Your task to perform on an android device: open the mobile data screen to see how much data has been used Image 0: 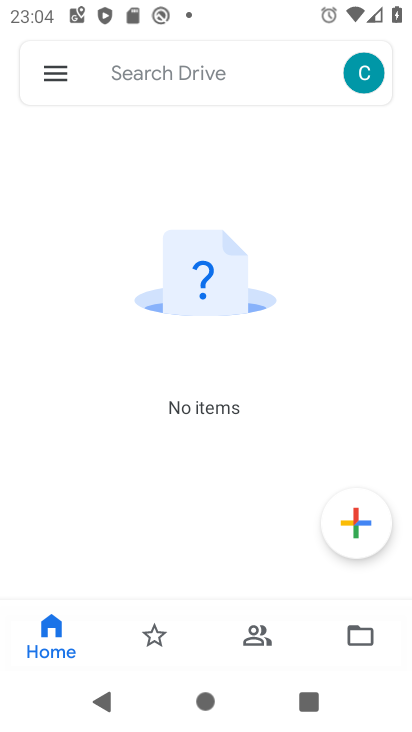
Step 0: press home button
Your task to perform on an android device: open the mobile data screen to see how much data has been used Image 1: 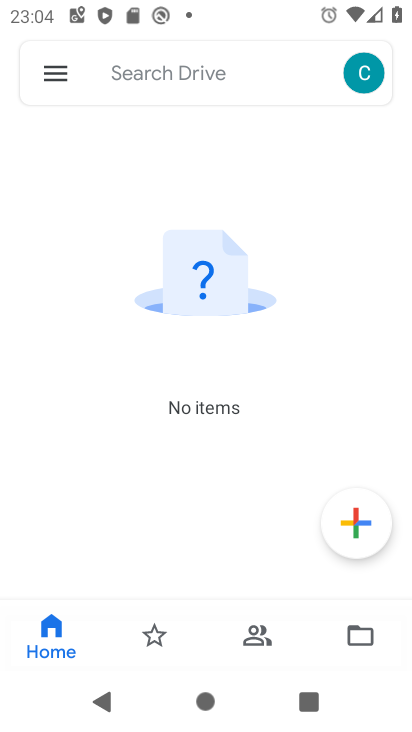
Step 1: press home button
Your task to perform on an android device: open the mobile data screen to see how much data has been used Image 2: 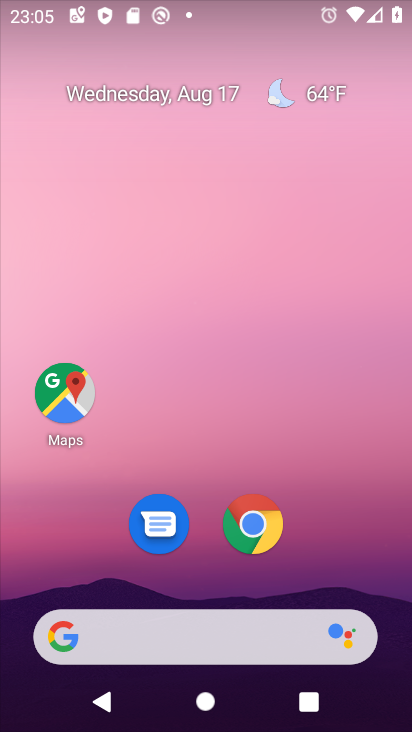
Step 2: drag from (354, 495) to (359, 14)
Your task to perform on an android device: open the mobile data screen to see how much data has been used Image 3: 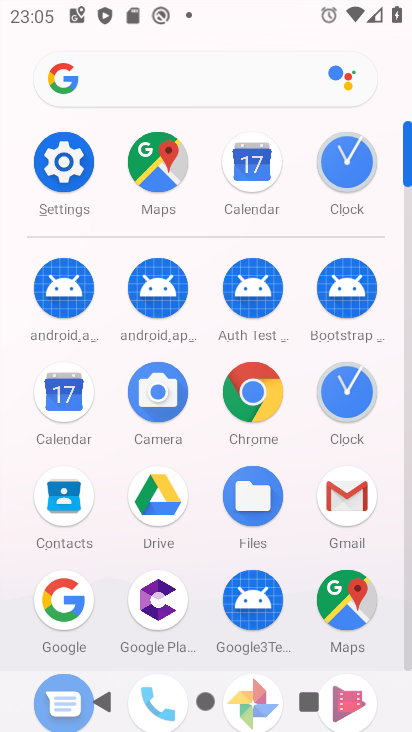
Step 3: click (65, 150)
Your task to perform on an android device: open the mobile data screen to see how much data has been used Image 4: 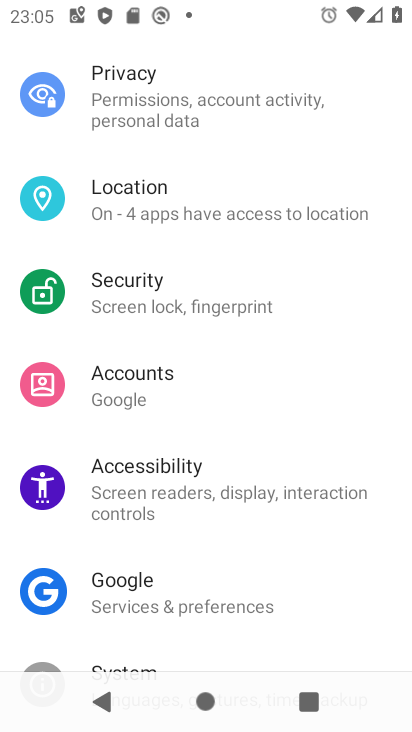
Step 4: drag from (233, 276) to (215, 587)
Your task to perform on an android device: open the mobile data screen to see how much data has been used Image 5: 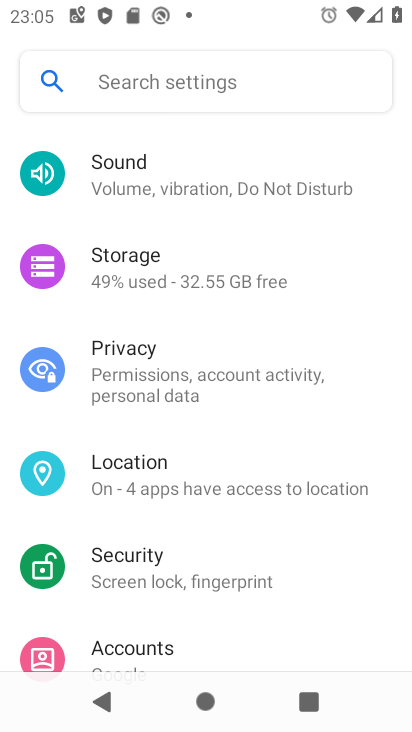
Step 5: drag from (241, 323) to (248, 627)
Your task to perform on an android device: open the mobile data screen to see how much data has been used Image 6: 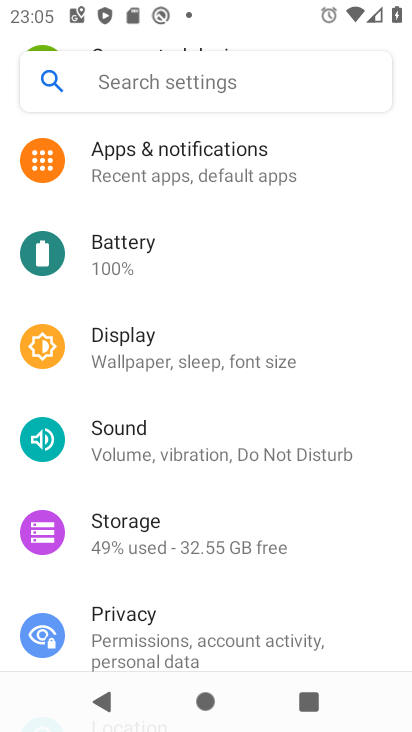
Step 6: drag from (248, 312) to (257, 655)
Your task to perform on an android device: open the mobile data screen to see how much data has been used Image 7: 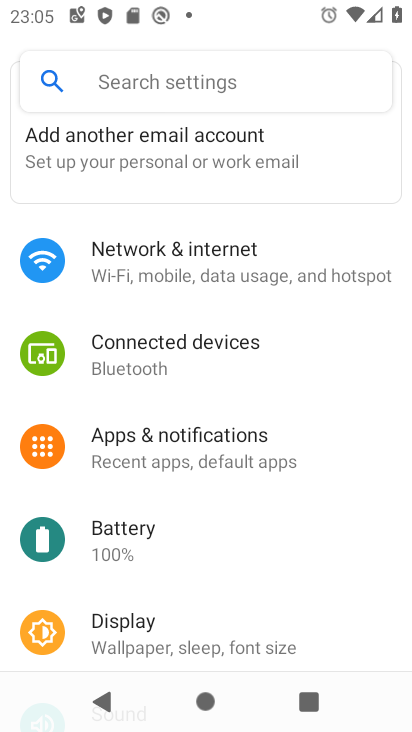
Step 7: click (239, 252)
Your task to perform on an android device: open the mobile data screen to see how much data has been used Image 8: 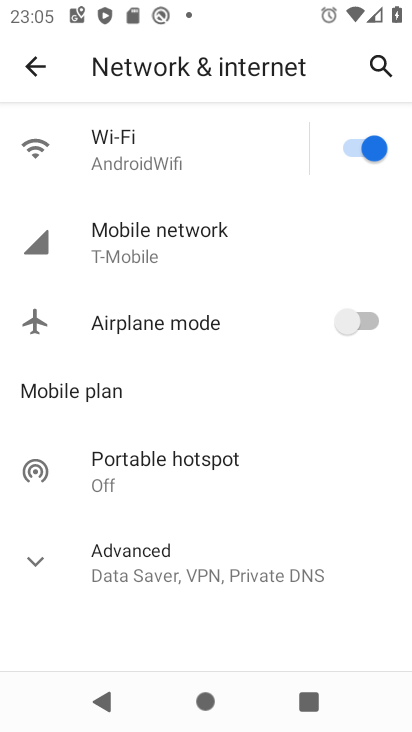
Step 8: click (194, 232)
Your task to perform on an android device: open the mobile data screen to see how much data has been used Image 9: 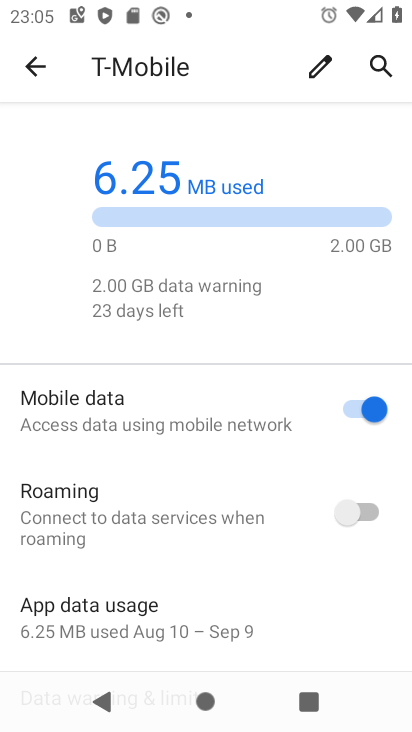
Step 9: task complete